Your task to perform on an android device: Open Google Image 0: 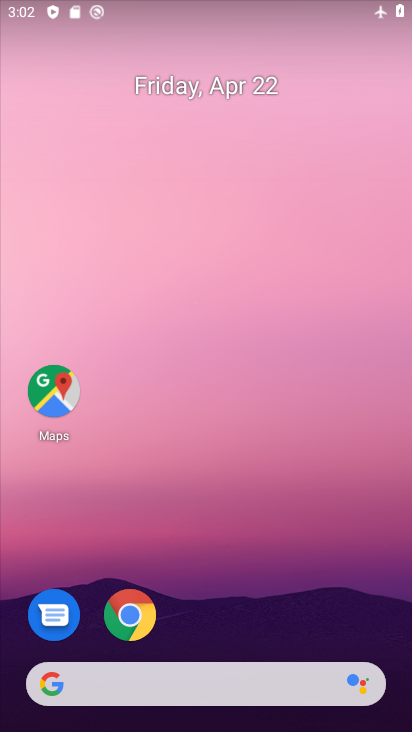
Step 0: drag from (189, 660) to (190, 154)
Your task to perform on an android device: Open Google Image 1: 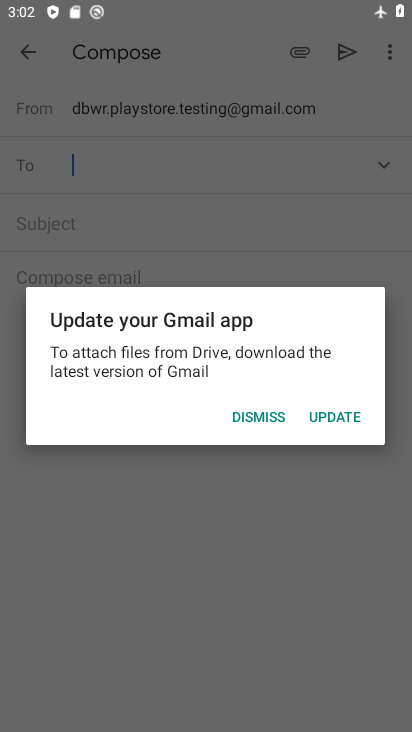
Step 1: press home button
Your task to perform on an android device: Open Google Image 2: 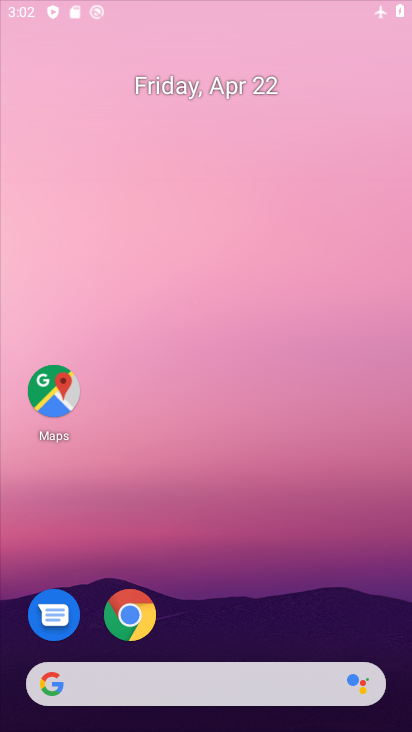
Step 2: click (243, 494)
Your task to perform on an android device: Open Google Image 3: 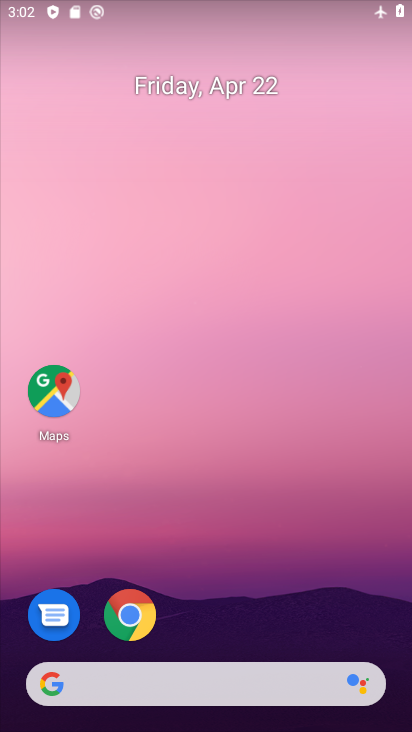
Step 3: drag from (214, 656) to (211, 283)
Your task to perform on an android device: Open Google Image 4: 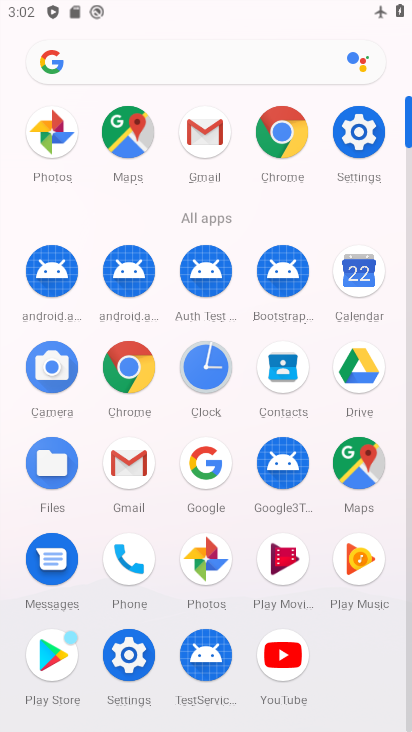
Step 4: click (204, 465)
Your task to perform on an android device: Open Google Image 5: 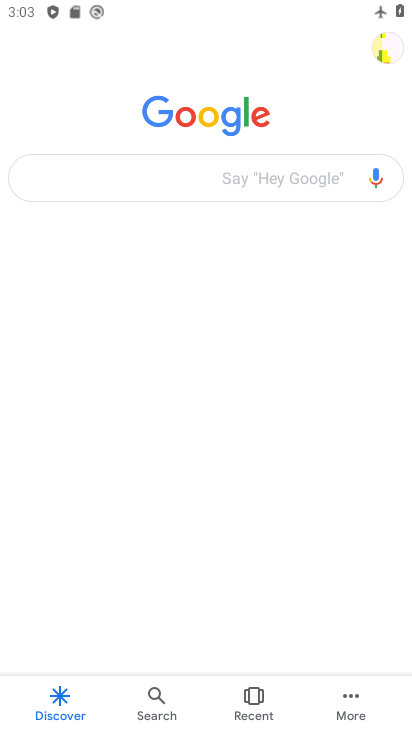
Step 5: task complete